Your task to perform on an android device: turn off sleep mode Image 0: 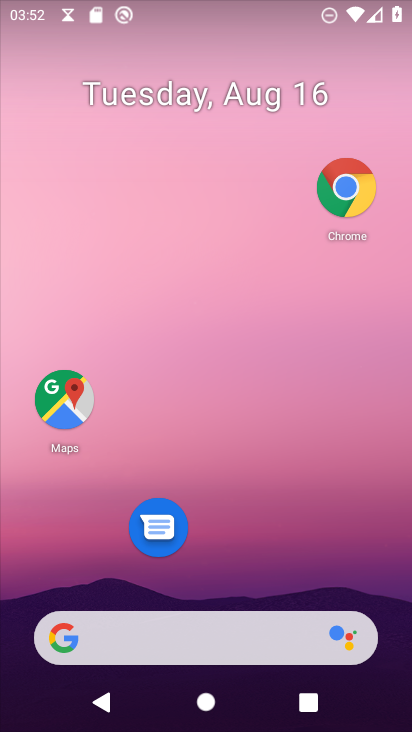
Step 0: drag from (246, 486) to (269, 2)
Your task to perform on an android device: turn off sleep mode Image 1: 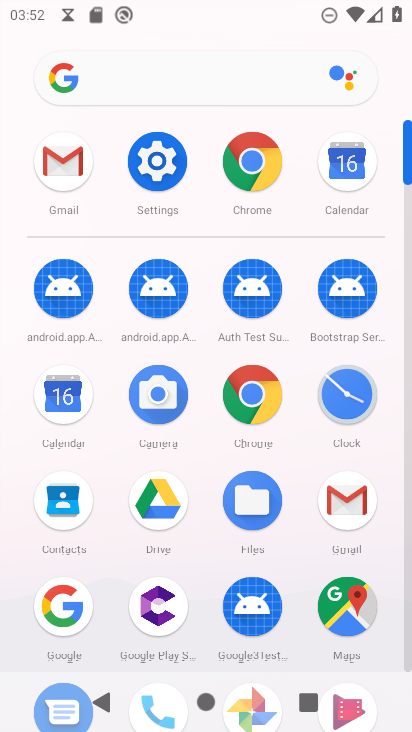
Step 1: drag from (219, 425) to (339, 95)
Your task to perform on an android device: turn off sleep mode Image 2: 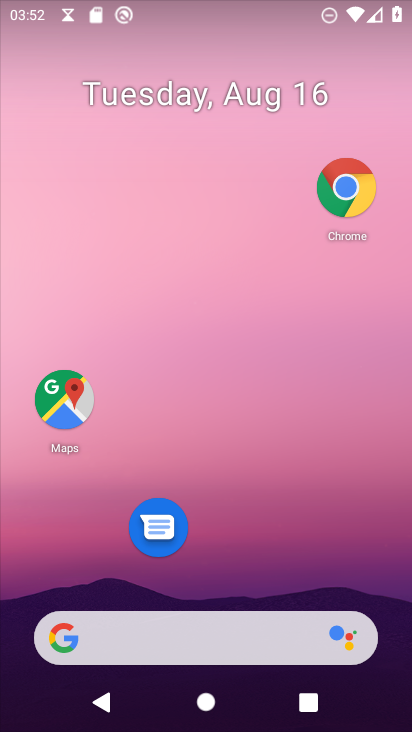
Step 2: click (152, 152)
Your task to perform on an android device: turn off sleep mode Image 3: 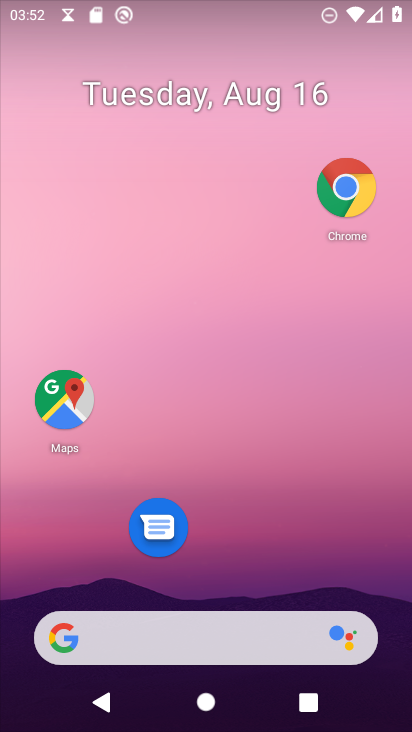
Step 3: drag from (198, 605) to (163, 47)
Your task to perform on an android device: turn off sleep mode Image 4: 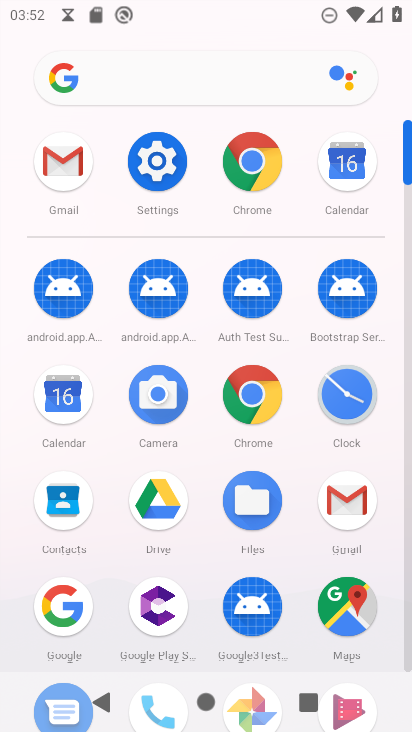
Step 4: click (166, 159)
Your task to perform on an android device: turn off sleep mode Image 5: 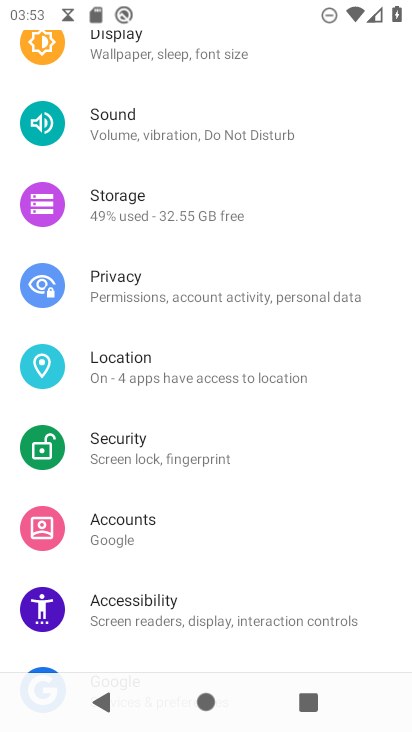
Step 5: click (124, 55)
Your task to perform on an android device: turn off sleep mode Image 6: 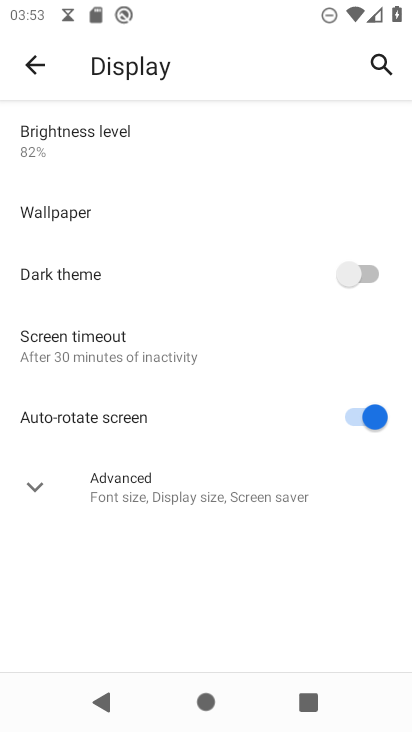
Step 6: task complete